Your task to perform on an android device: open a bookmark in the chrome app Image 0: 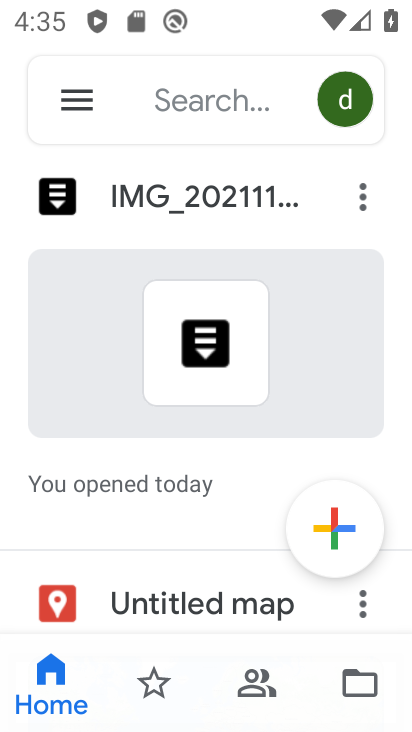
Step 0: press home button
Your task to perform on an android device: open a bookmark in the chrome app Image 1: 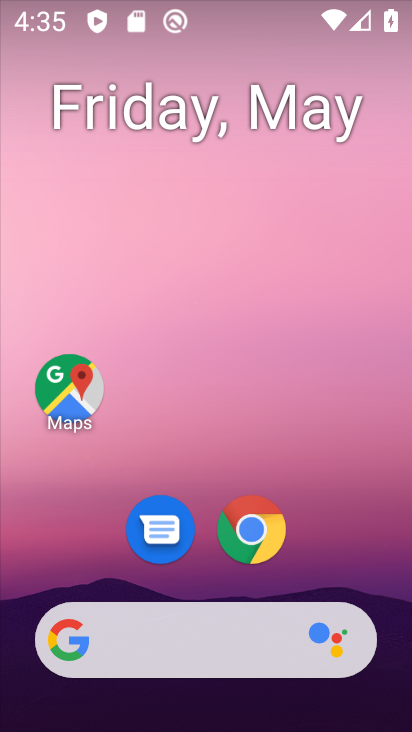
Step 1: drag from (329, 502) to (301, 69)
Your task to perform on an android device: open a bookmark in the chrome app Image 2: 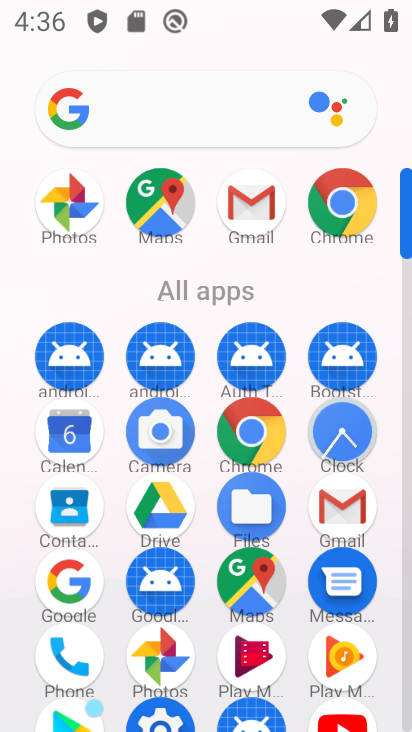
Step 2: click (363, 196)
Your task to perform on an android device: open a bookmark in the chrome app Image 3: 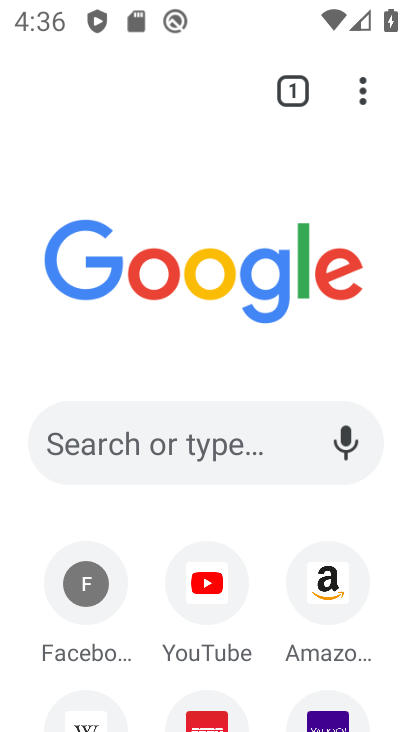
Step 3: task complete